Your task to perform on an android device: Open privacy settings Image 0: 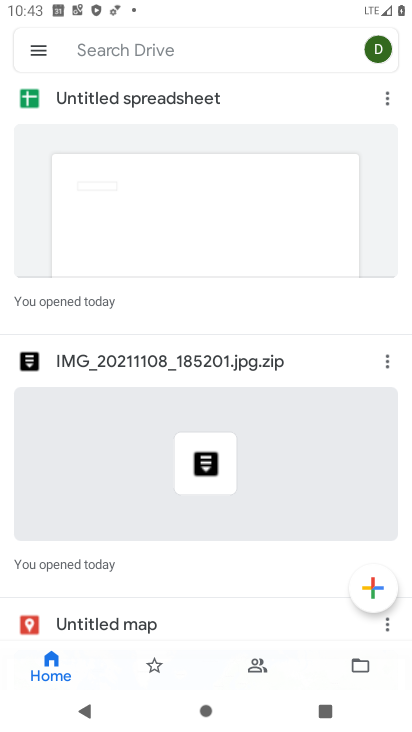
Step 0: press home button
Your task to perform on an android device: Open privacy settings Image 1: 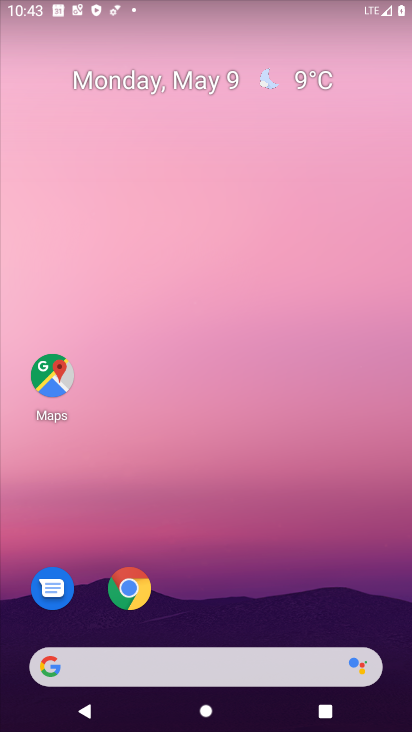
Step 1: drag from (162, 634) to (256, 98)
Your task to perform on an android device: Open privacy settings Image 2: 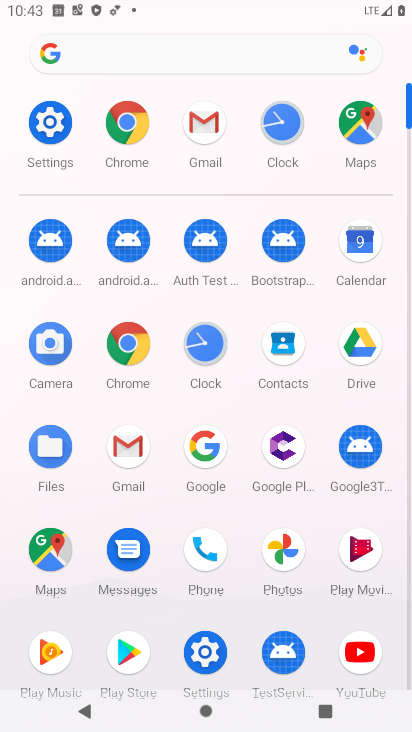
Step 2: click (58, 119)
Your task to perform on an android device: Open privacy settings Image 3: 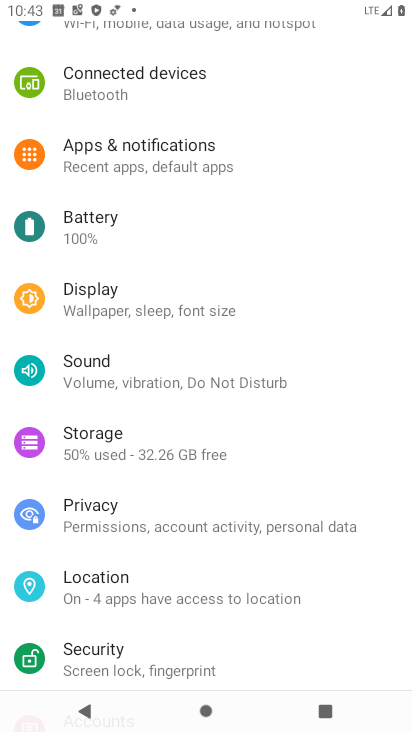
Step 3: click (96, 514)
Your task to perform on an android device: Open privacy settings Image 4: 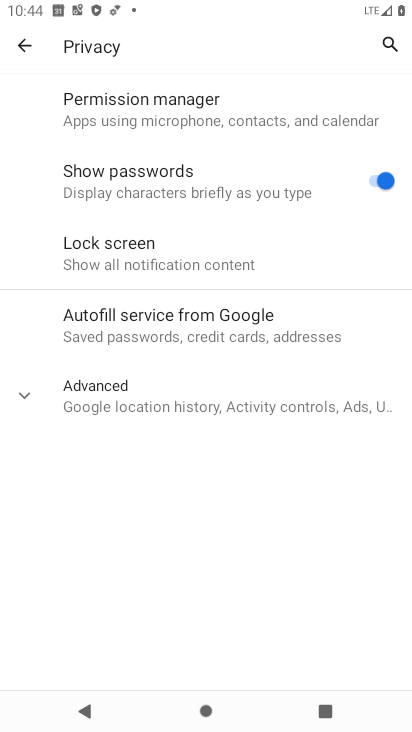
Step 4: task complete